Your task to perform on an android device: turn pop-ups on in chrome Image 0: 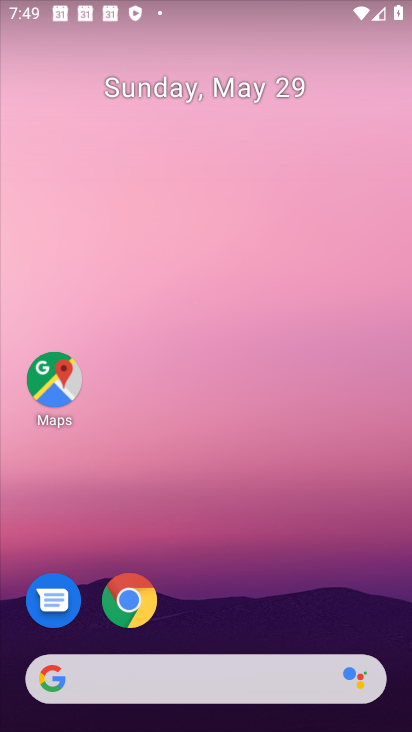
Step 0: drag from (245, 575) to (282, 210)
Your task to perform on an android device: turn pop-ups on in chrome Image 1: 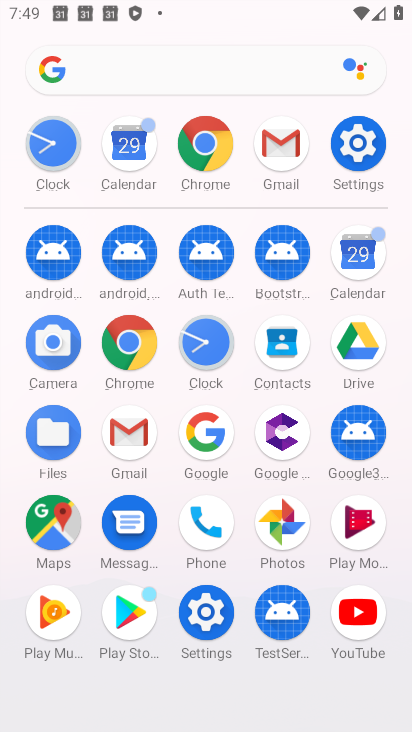
Step 1: click (185, 134)
Your task to perform on an android device: turn pop-ups on in chrome Image 2: 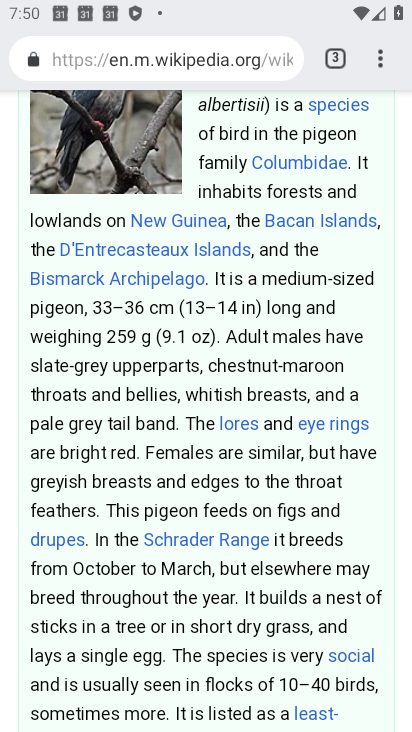
Step 2: drag from (245, 167) to (252, 577)
Your task to perform on an android device: turn pop-ups on in chrome Image 3: 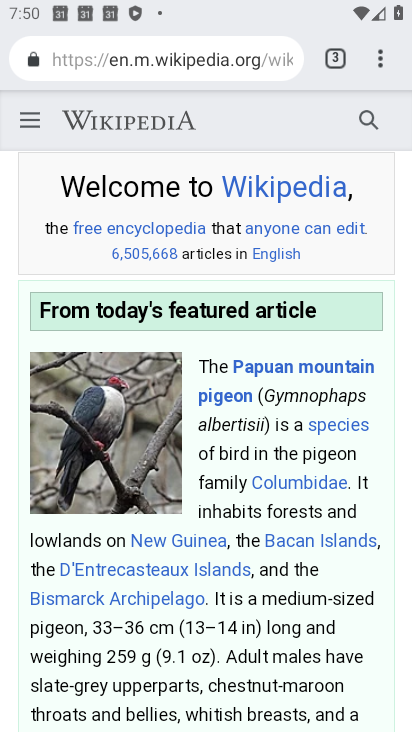
Step 3: drag from (383, 62) to (197, 643)
Your task to perform on an android device: turn pop-ups on in chrome Image 4: 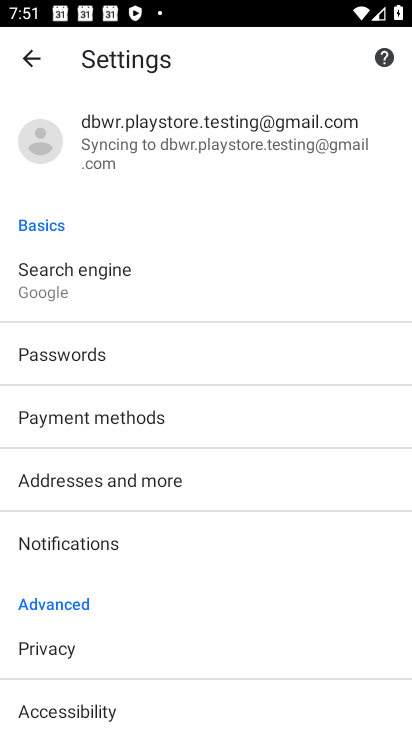
Step 4: drag from (212, 651) to (251, 351)
Your task to perform on an android device: turn pop-ups on in chrome Image 5: 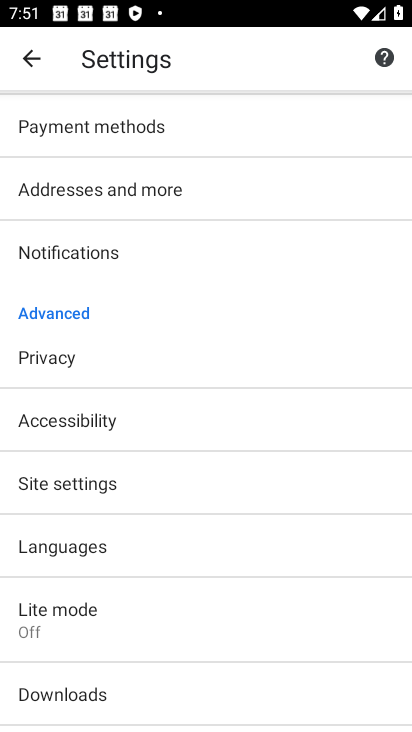
Step 5: drag from (254, 658) to (274, 359)
Your task to perform on an android device: turn pop-ups on in chrome Image 6: 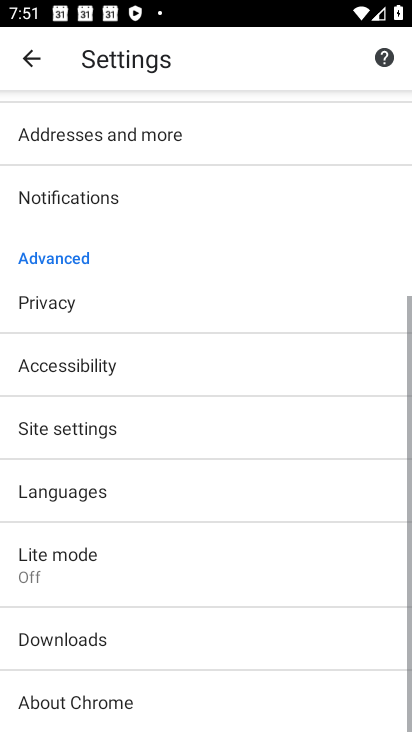
Step 6: click (198, 419)
Your task to perform on an android device: turn pop-ups on in chrome Image 7: 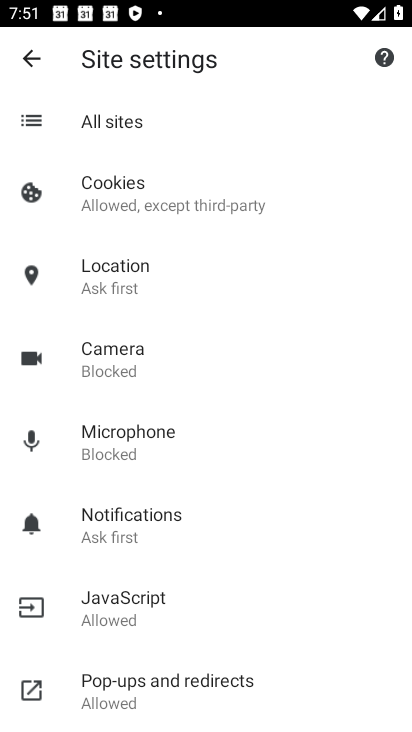
Step 7: drag from (240, 619) to (279, 310)
Your task to perform on an android device: turn pop-ups on in chrome Image 8: 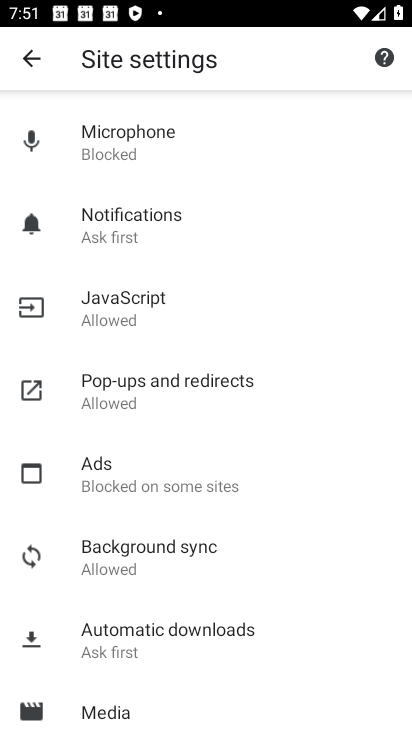
Step 8: click (264, 386)
Your task to perform on an android device: turn pop-ups on in chrome Image 9: 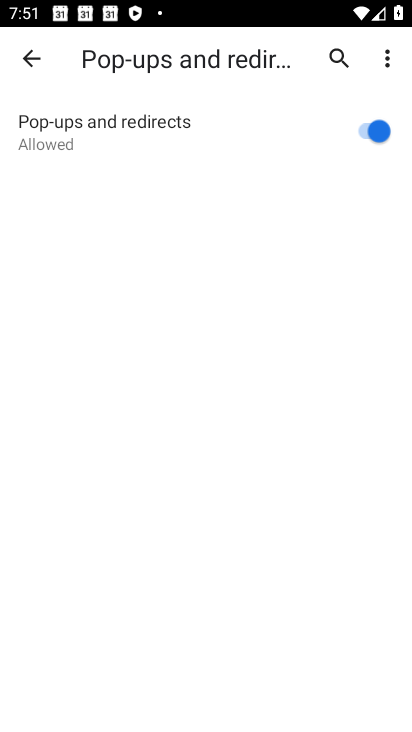
Step 9: task complete